Your task to perform on an android device: Open location settings Image 0: 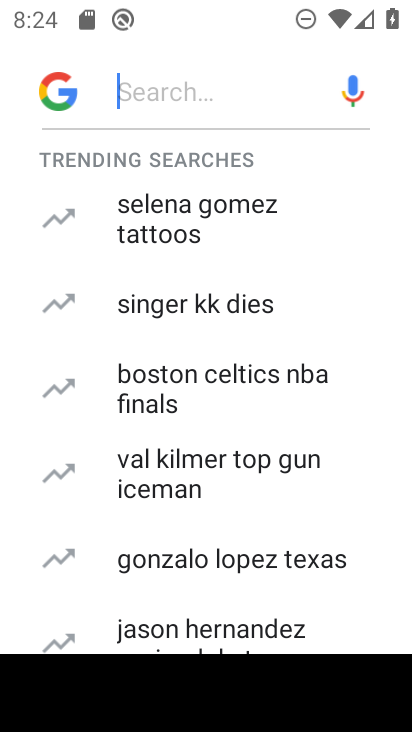
Step 0: press back button
Your task to perform on an android device: Open location settings Image 1: 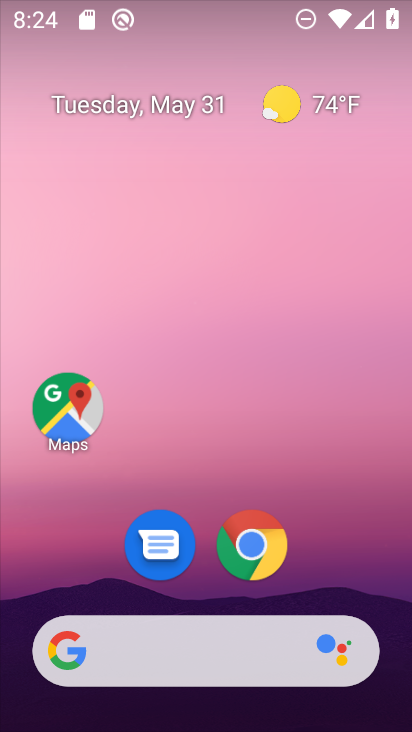
Step 1: drag from (376, 562) to (208, 17)
Your task to perform on an android device: Open location settings Image 2: 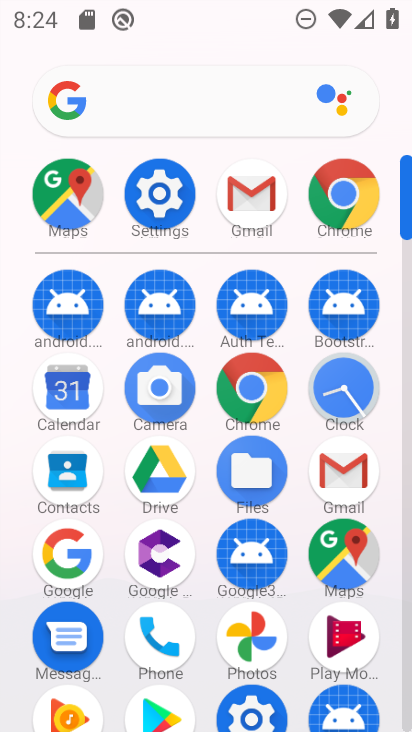
Step 2: drag from (0, 359) to (23, 266)
Your task to perform on an android device: Open location settings Image 3: 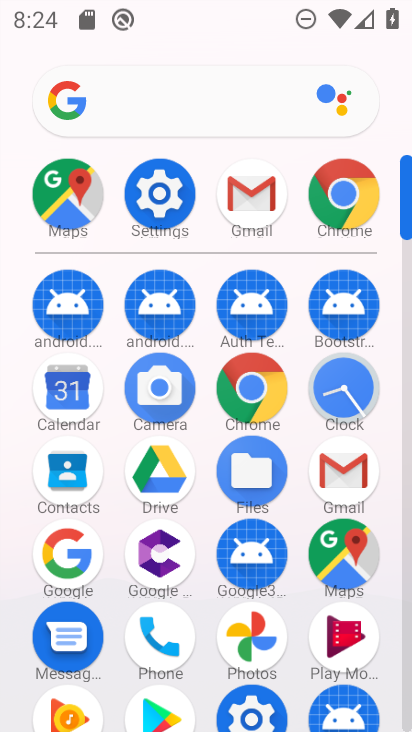
Step 3: click (250, 713)
Your task to perform on an android device: Open location settings Image 4: 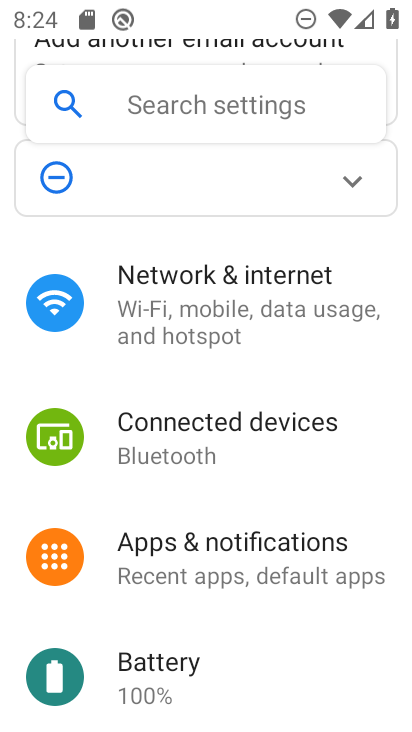
Step 4: drag from (310, 684) to (277, 228)
Your task to perform on an android device: Open location settings Image 5: 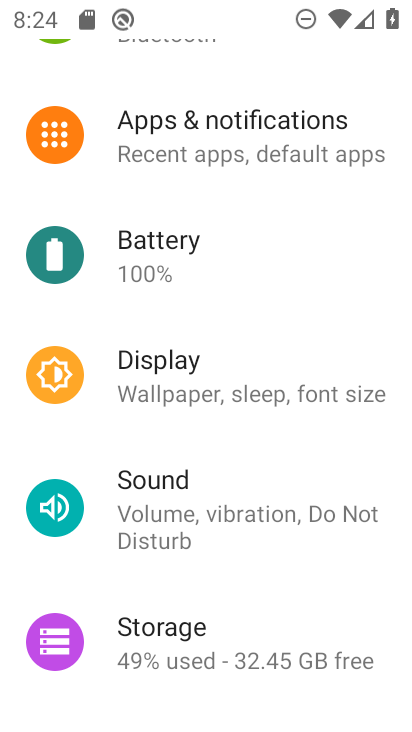
Step 5: drag from (251, 574) to (249, 141)
Your task to perform on an android device: Open location settings Image 6: 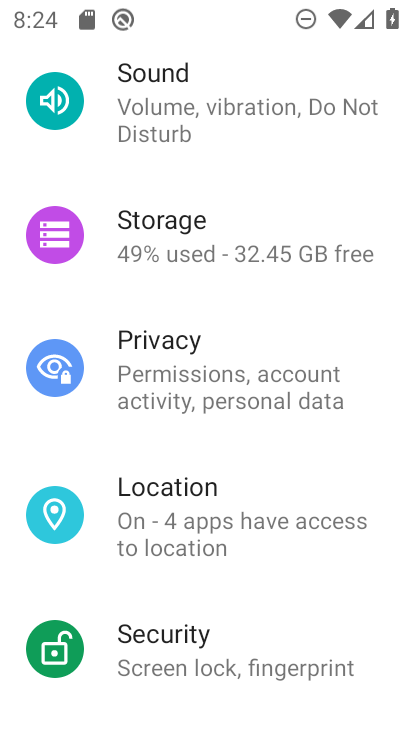
Step 6: click (187, 512)
Your task to perform on an android device: Open location settings Image 7: 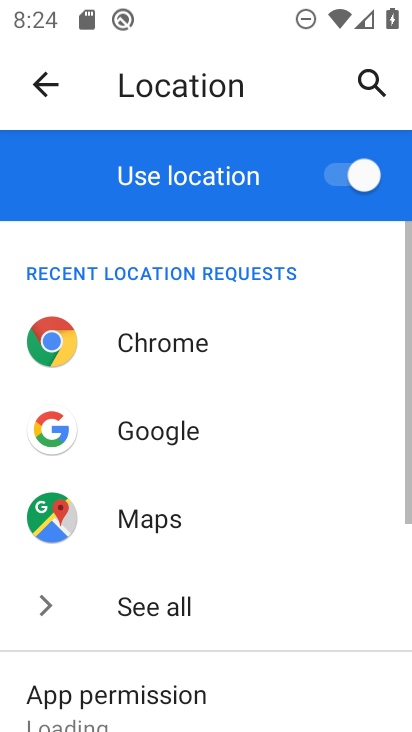
Step 7: drag from (272, 595) to (269, 191)
Your task to perform on an android device: Open location settings Image 8: 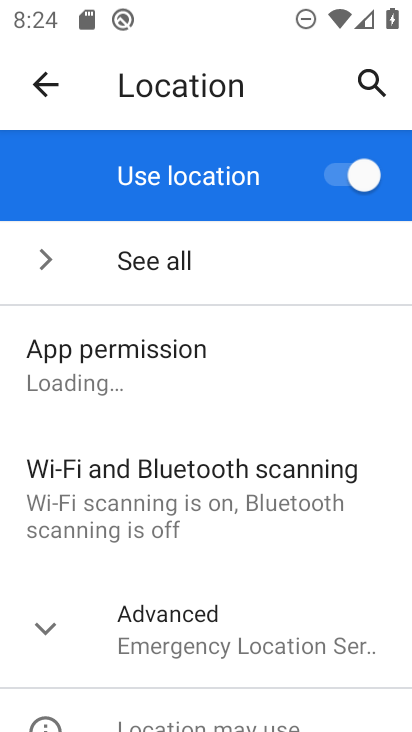
Step 8: click (53, 620)
Your task to perform on an android device: Open location settings Image 9: 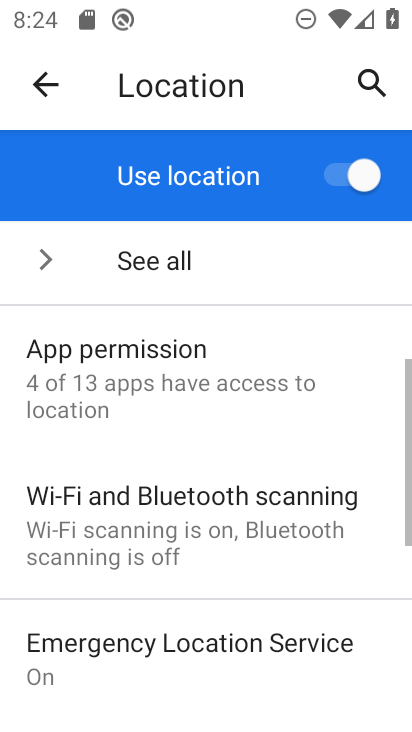
Step 9: task complete